Your task to perform on an android device: Search for sushi restaurants on Maps Image 0: 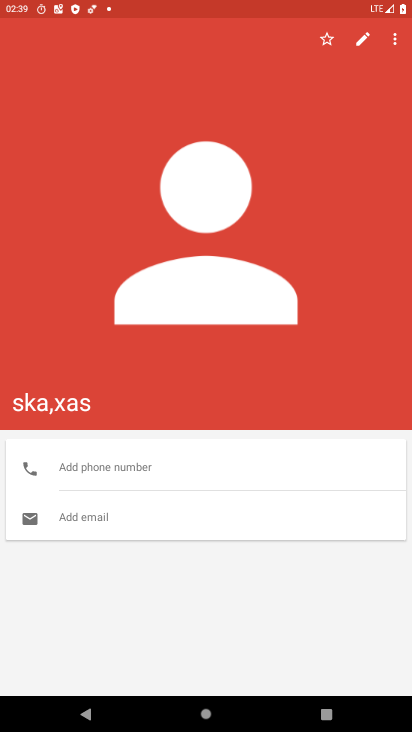
Step 0: drag from (211, 554) to (264, 306)
Your task to perform on an android device: Search for sushi restaurants on Maps Image 1: 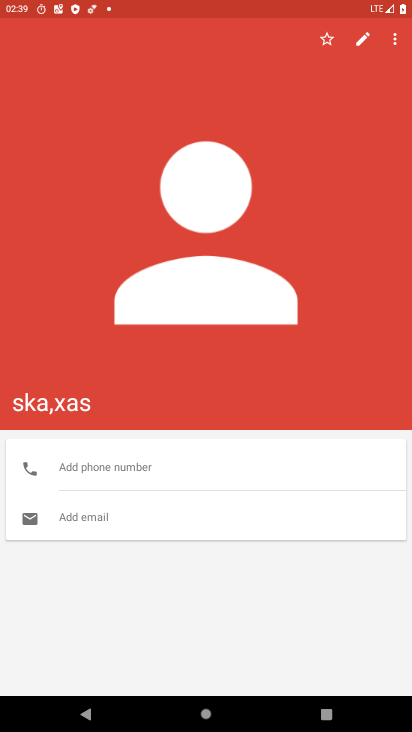
Step 1: drag from (150, 515) to (255, 269)
Your task to perform on an android device: Search for sushi restaurants on Maps Image 2: 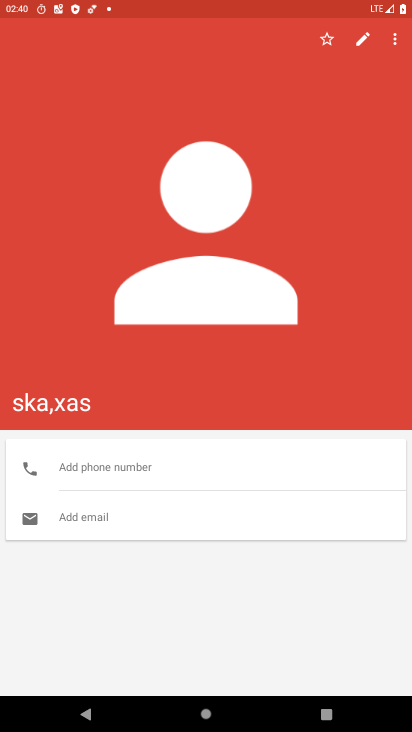
Step 2: drag from (265, 601) to (275, 315)
Your task to perform on an android device: Search for sushi restaurants on Maps Image 3: 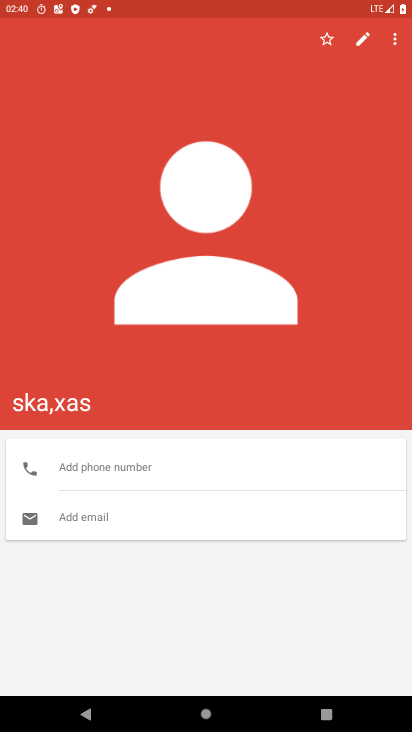
Step 3: press home button
Your task to perform on an android device: Search for sushi restaurants on Maps Image 4: 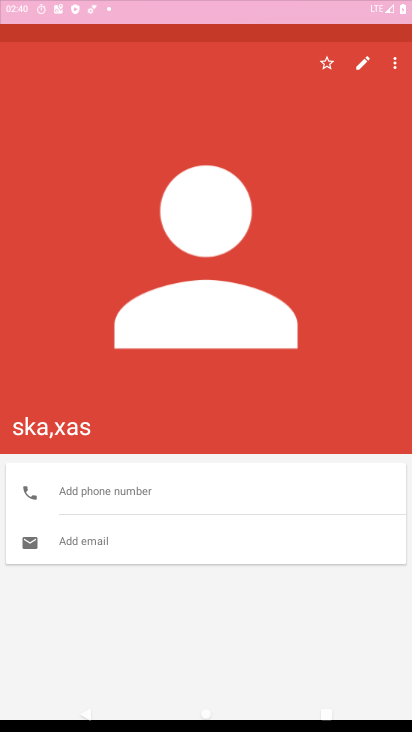
Step 4: drag from (249, 578) to (304, 352)
Your task to perform on an android device: Search for sushi restaurants on Maps Image 5: 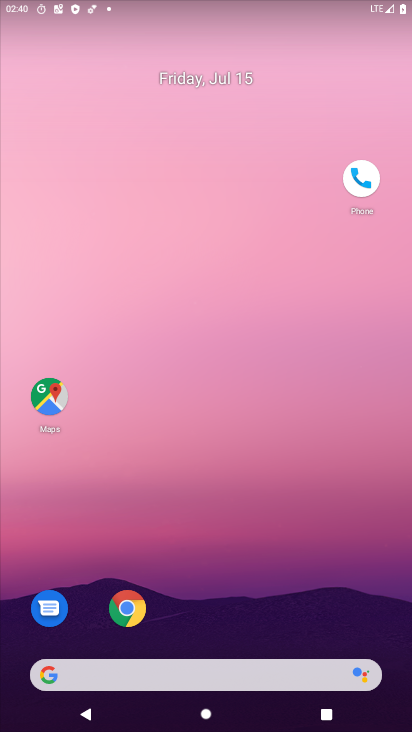
Step 5: drag from (187, 598) to (247, 195)
Your task to perform on an android device: Search for sushi restaurants on Maps Image 6: 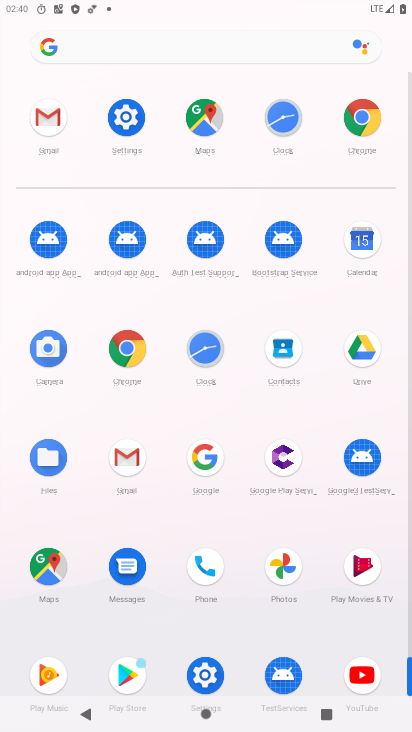
Step 6: click (35, 567)
Your task to perform on an android device: Search for sushi restaurants on Maps Image 7: 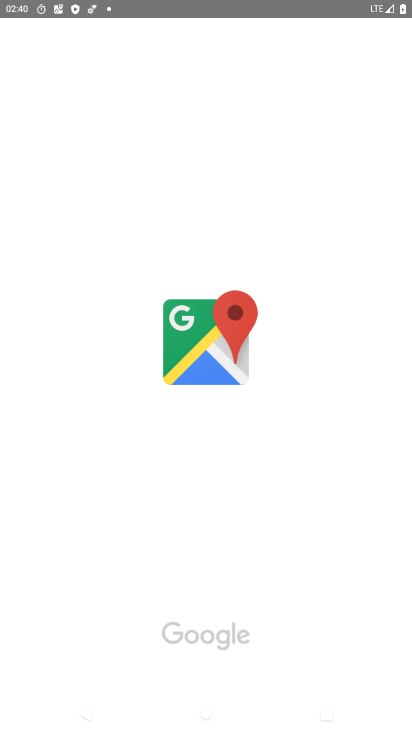
Step 7: drag from (212, 510) to (218, 348)
Your task to perform on an android device: Search for sushi restaurants on Maps Image 8: 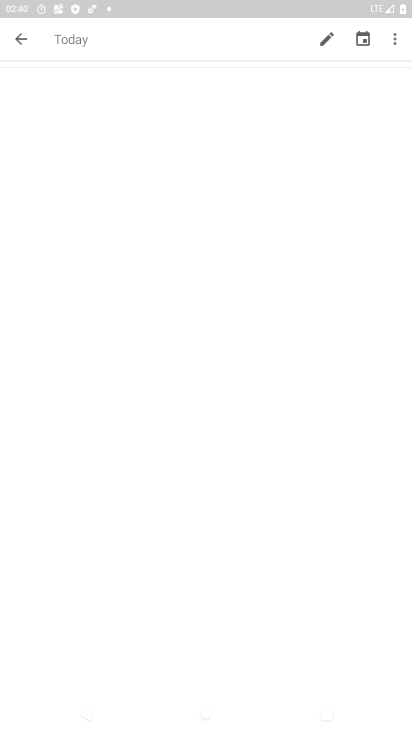
Step 8: drag from (229, 497) to (272, 273)
Your task to perform on an android device: Search for sushi restaurants on Maps Image 9: 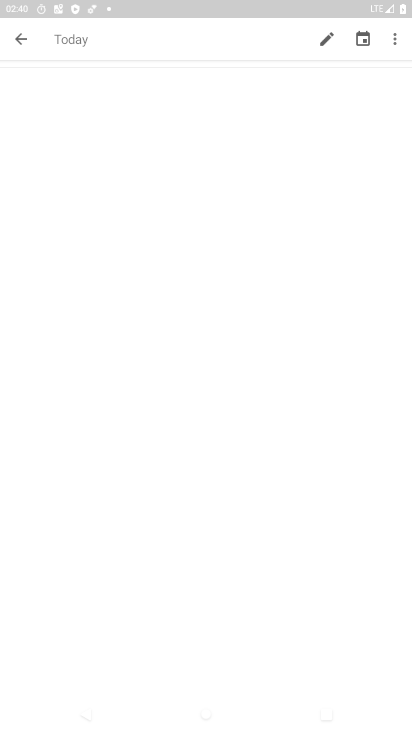
Step 9: click (33, 38)
Your task to perform on an android device: Search for sushi restaurants on Maps Image 10: 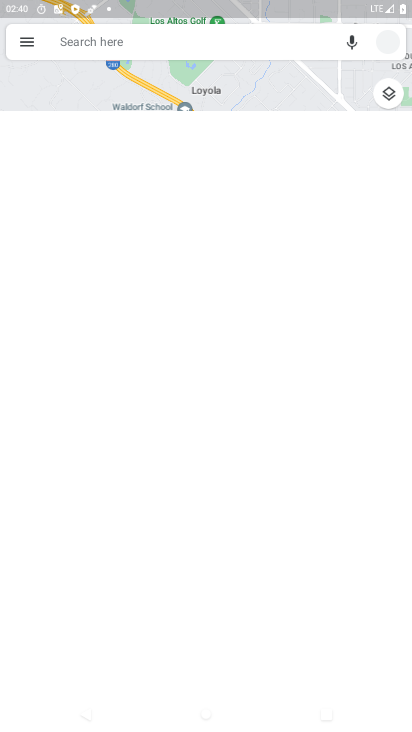
Step 10: press back button
Your task to perform on an android device: Search for sushi restaurants on Maps Image 11: 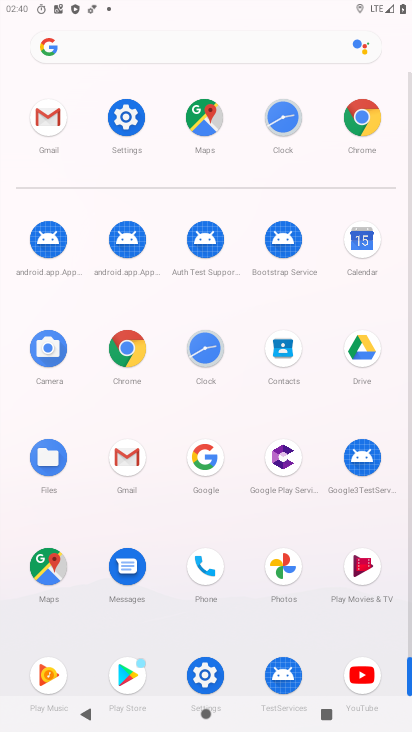
Step 11: click (102, 55)
Your task to perform on an android device: Search for sushi restaurants on Maps Image 12: 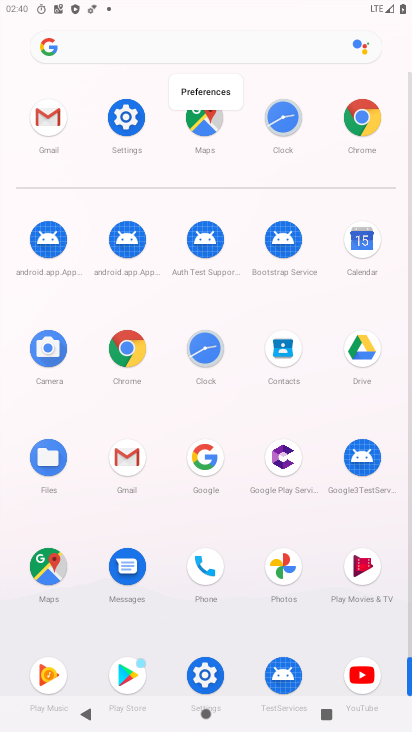
Step 12: click (51, 569)
Your task to perform on an android device: Search for sushi restaurants on Maps Image 13: 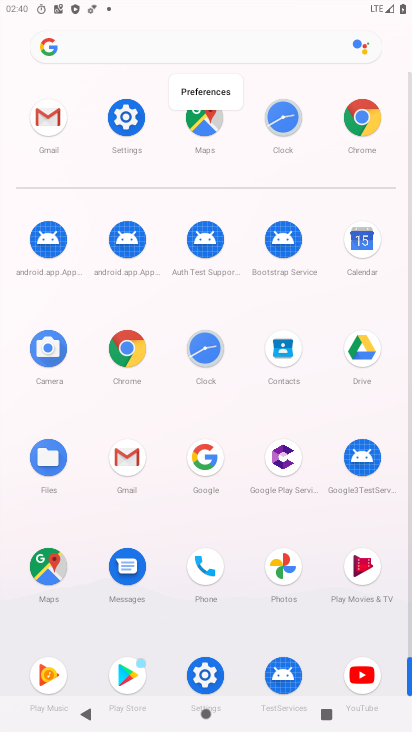
Step 13: click (51, 567)
Your task to perform on an android device: Search for sushi restaurants on Maps Image 14: 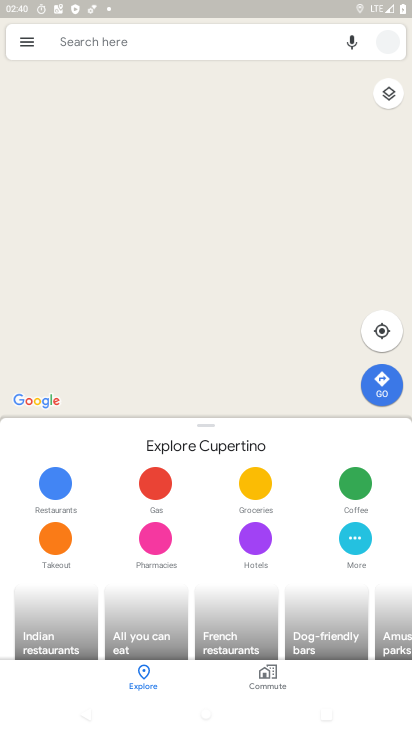
Step 14: click (110, 55)
Your task to perform on an android device: Search for sushi restaurants on Maps Image 15: 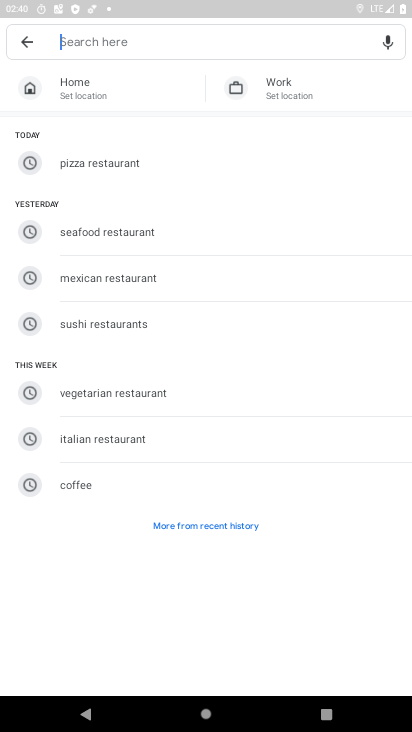
Step 15: click (124, 317)
Your task to perform on an android device: Search for sushi restaurants on Maps Image 16: 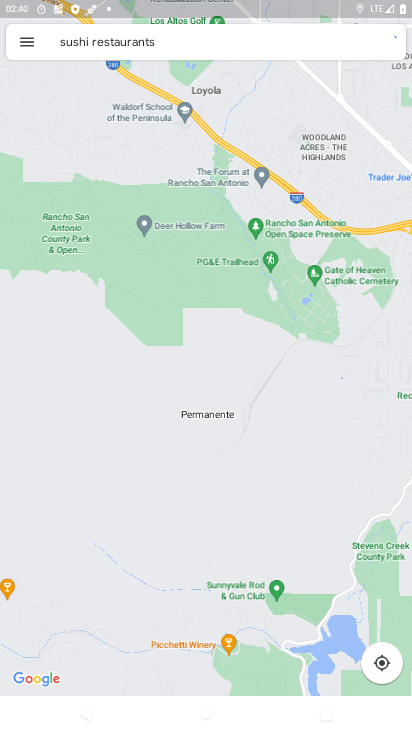
Step 16: task complete